Your task to perform on an android device: Open the stopwatch Image 0: 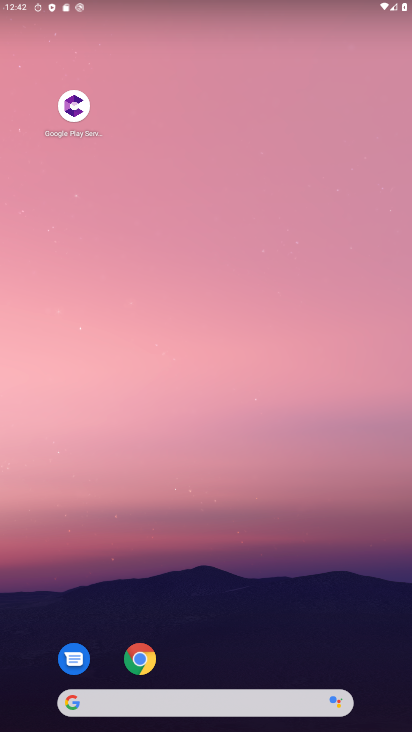
Step 0: drag from (258, 640) to (223, 16)
Your task to perform on an android device: Open the stopwatch Image 1: 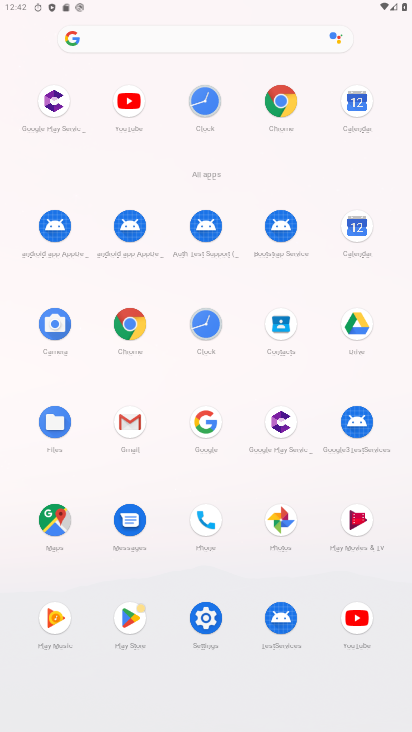
Step 1: click (212, 320)
Your task to perform on an android device: Open the stopwatch Image 2: 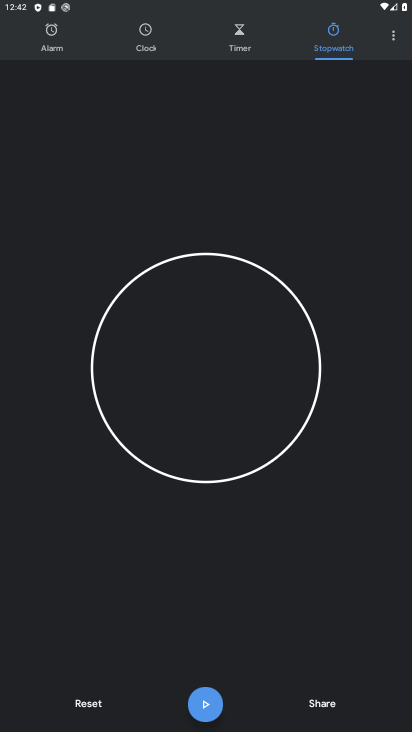
Step 2: task complete